Your task to perform on an android device: clear history in the chrome app Image 0: 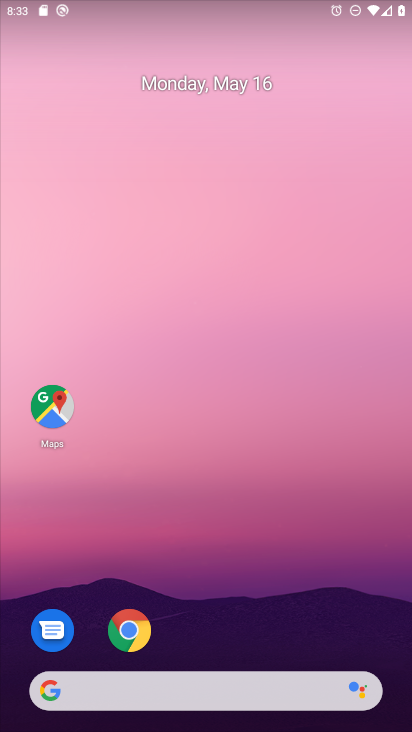
Step 0: click (125, 626)
Your task to perform on an android device: clear history in the chrome app Image 1: 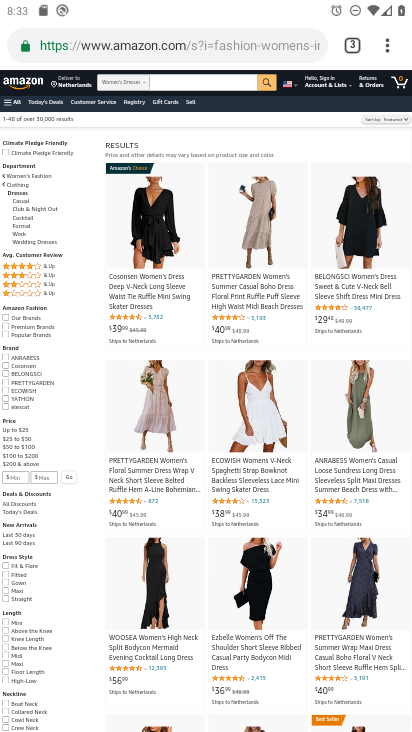
Step 1: click (387, 35)
Your task to perform on an android device: clear history in the chrome app Image 2: 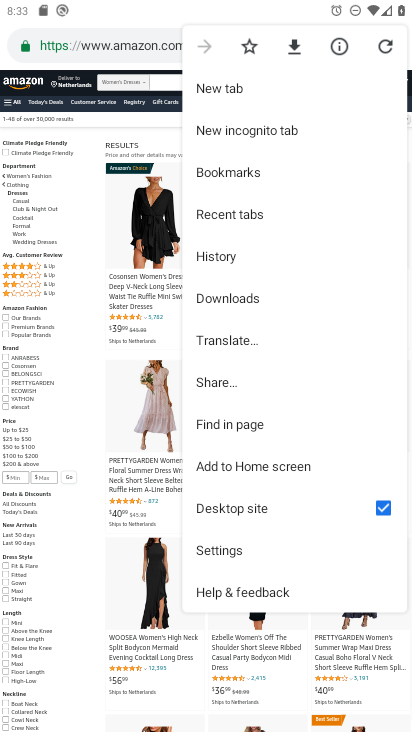
Step 2: click (207, 245)
Your task to perform on an android device: clear history in the chrome app Image 3: 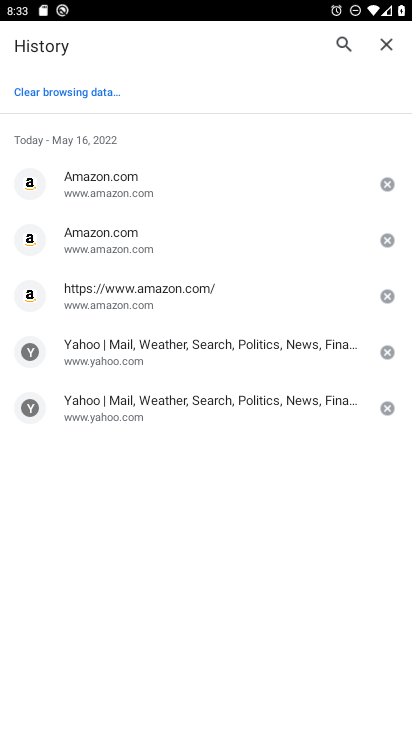
Step 3: click (388, 177)
Your task to perform on an android device: clear history in the chrome app Image 4: 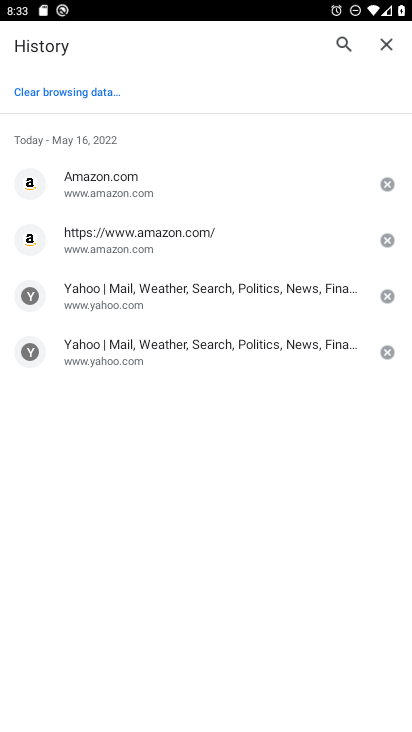
Step 4: click (388, 177)
Your task to perform on an android device: clear history in the chrome app Image 5: 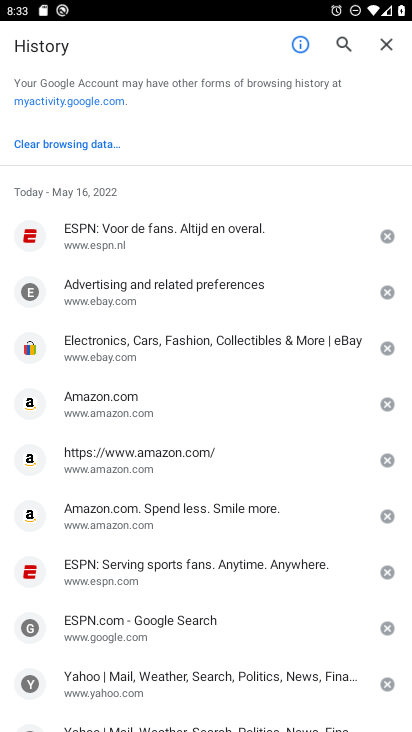
Step 5: click (388, 177)
Your task to perform on an android device: clear history in the chrome app Image 6: 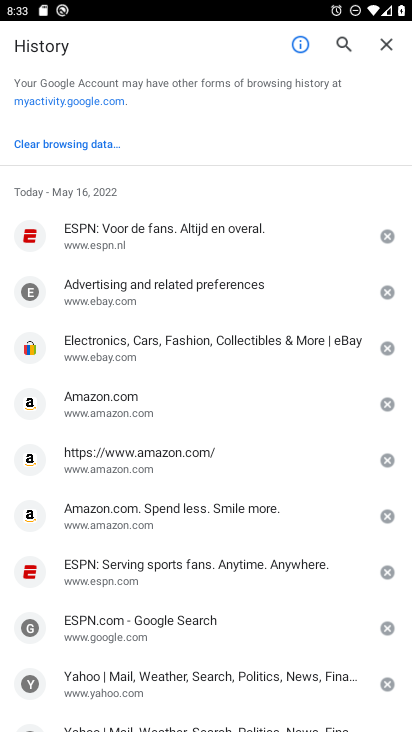
Step 6: click (78, 142)
Your task to perform on an android device: clear history in the chrome app Image 7: 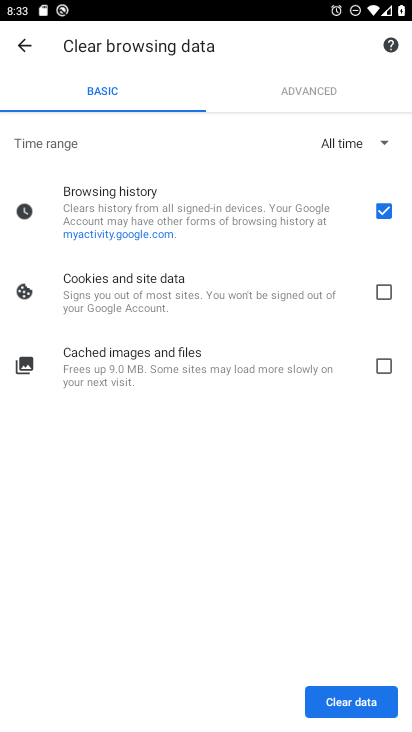
Step 7: click (364, 695)
Your task to perform on an android device: clear history in the chrome app Image 8: 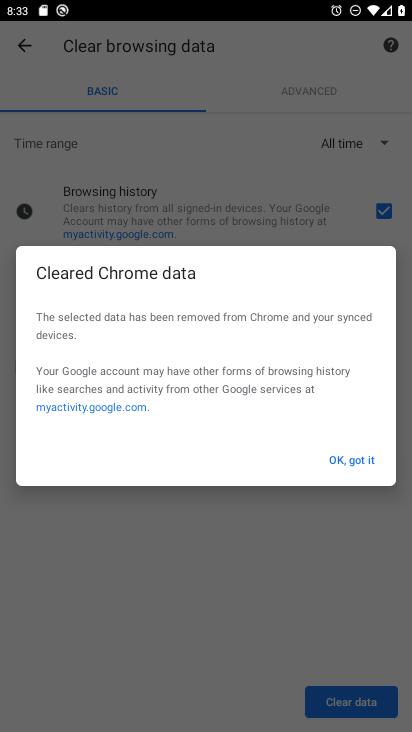
Step 8: click (360, 467)
Your task to perform on an android device: clear history in the chrome app Image 9: 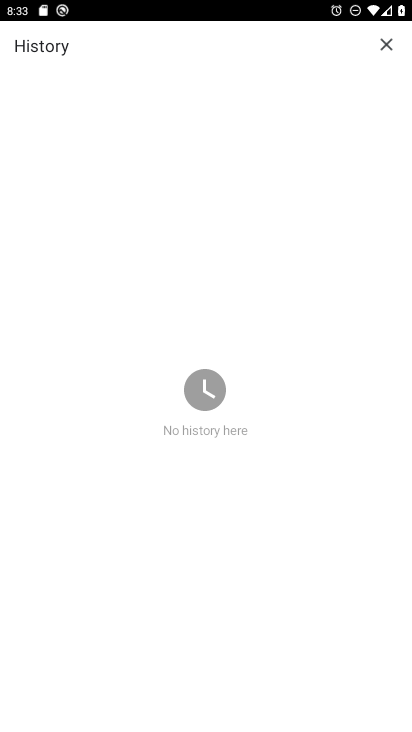
Step 9: click (37, 532)
Your task to perform on an android device: clear history in the chrome app Image 10: 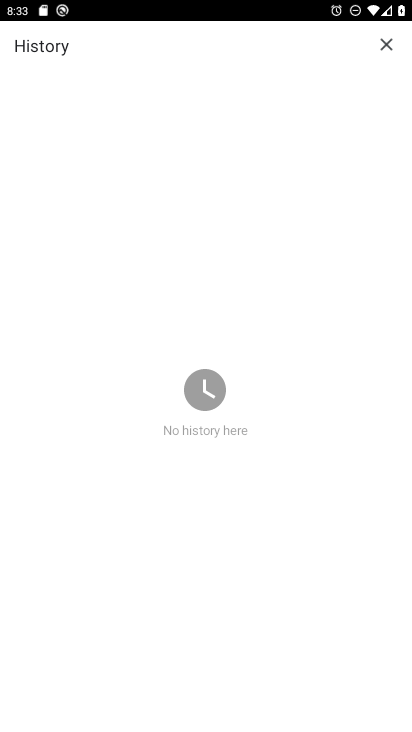
Step 10: task complete